Your task to perform on an android device: remove spam from my inbox in the gmail app Image 0: 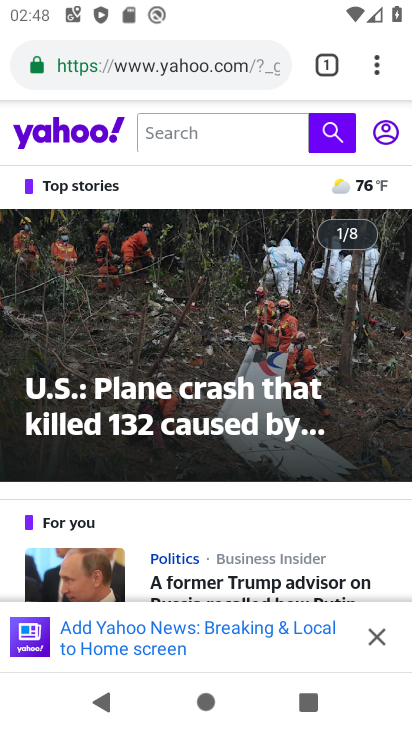
Step 0: press home button
Your task to perform on an android device: remove spam from my inbox in the gmail app Image 1: 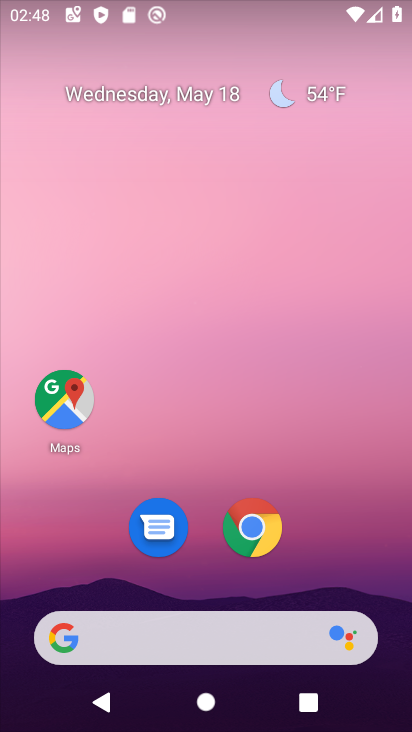
Step 1: drag from (155, 624) to (156, 14)
Your task to perform on an android device: remove spam from my inbox in the gmail app Image 2: 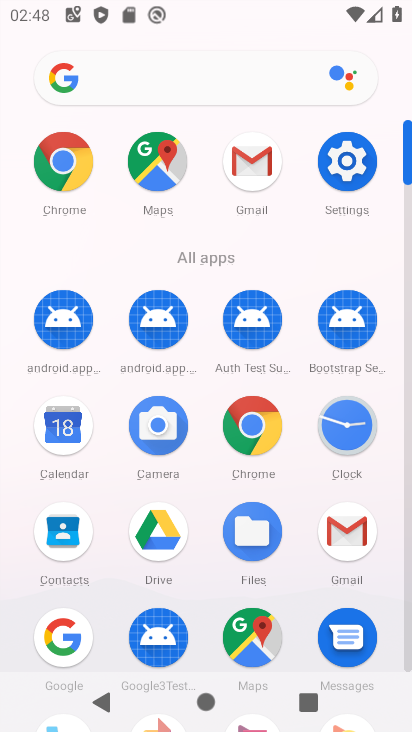
Step 2: click (373, 540)
Your task to perform on an android device: remove spam from my inbox in the gmail app Image 3: 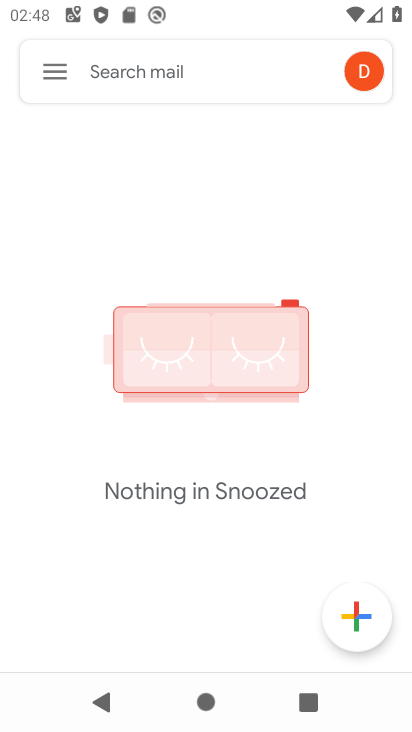
Step 3: click (45, 69)
Your task to perform on an android device: remove spam from my inbox in the gmail app Image 4: 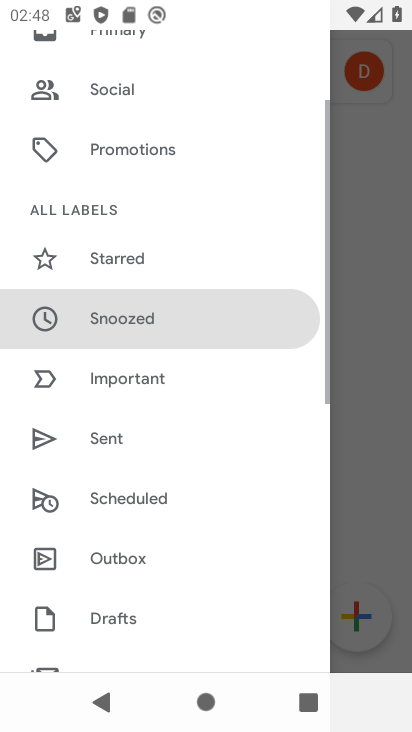
Step 4: drag from (138, 530) to (120, 149)
Your task to perform on an android device: remove spam from my inbox in the gmail app Image 5: 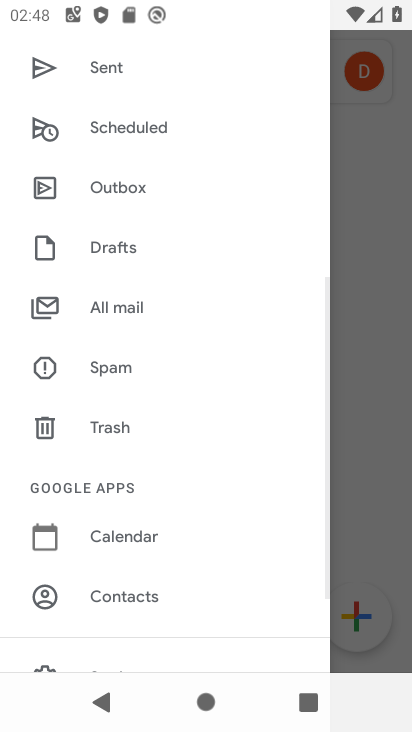
Step 5: click (119, 372)
Your task to perform on an android device: remove spam from my inbox in the gmail app Image 6: 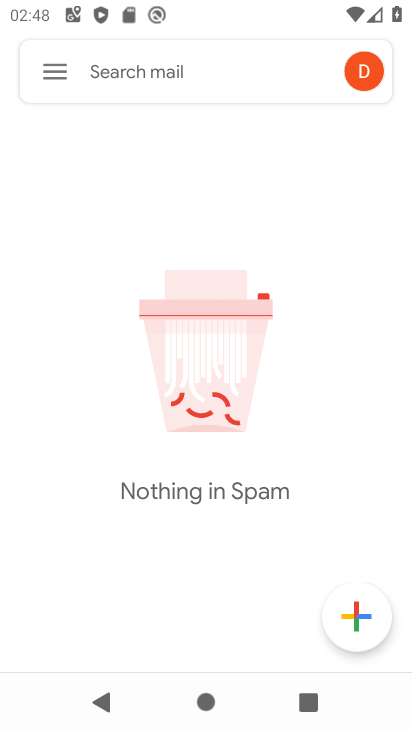
Step 6: task complete